Your task to perform on an android device: open the mobile data screen to see how much data has been used Image 0: 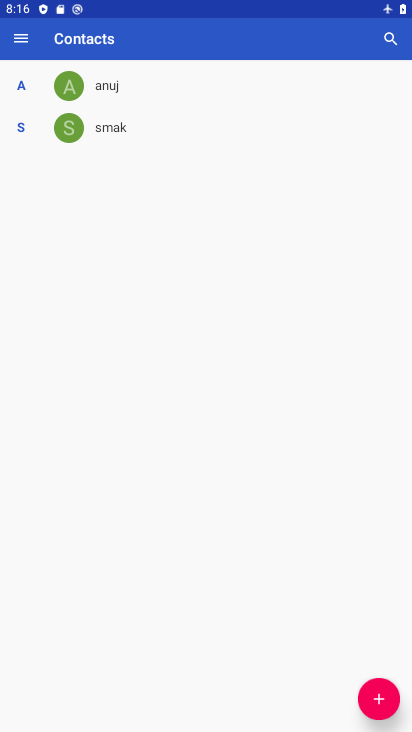
Step 0: press home button
Your task to perform on an android device: open the mobile data screen to see how much data has been used Image 1: 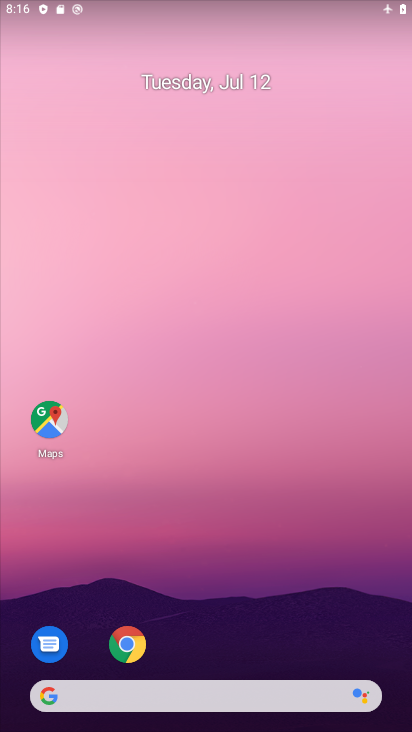
Step 1: drag from (213, 645) to (205, 154)
Your task to perform on an android device: open the mobile data screen to see how much data has been used Image 2: 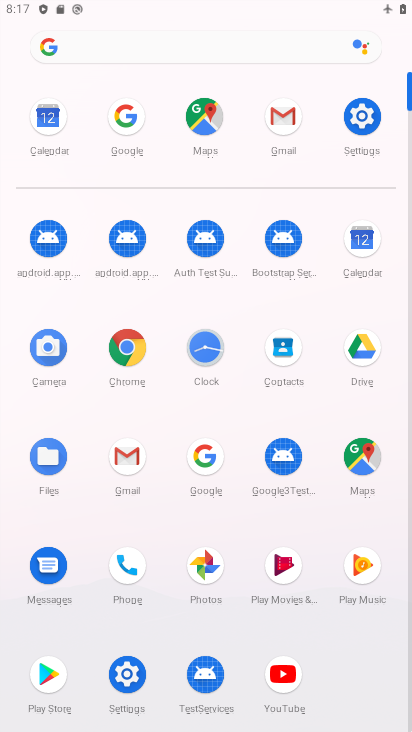
Step 2: click (346, 120)
Your task to perform on an android device: open the mobile data screen to see how much data has been used Image 3: 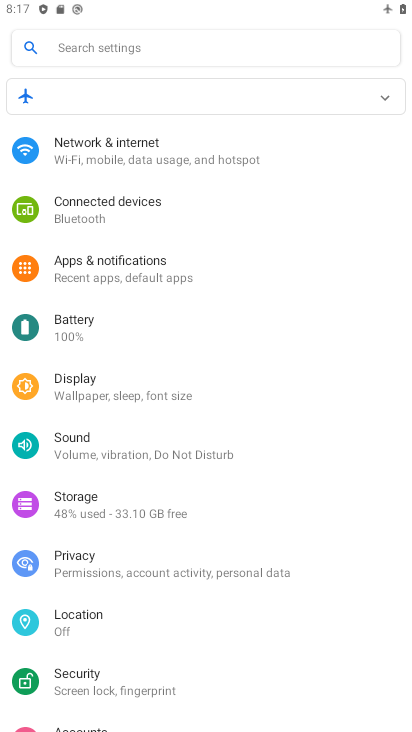
Step 3: click (177, 160)
Your task to perform on an android device: open the mobile data screen to see how much data has been used Image 4: 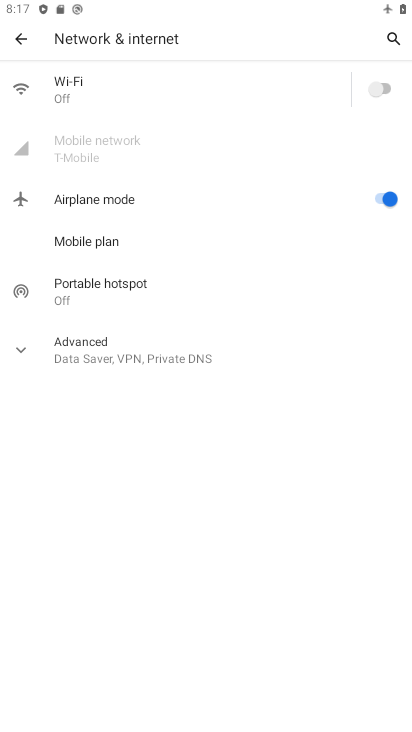
Step 4: click (133, 146)
Your task to perform on an android device: open the mobile data screen to see how much data has been used Image 5: 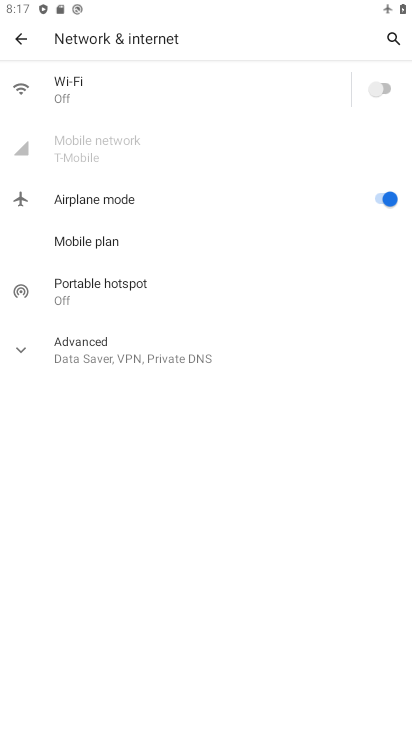
Step 5: task complete